Your task to perform on an android device: Go to Yahoo.com Image 0: 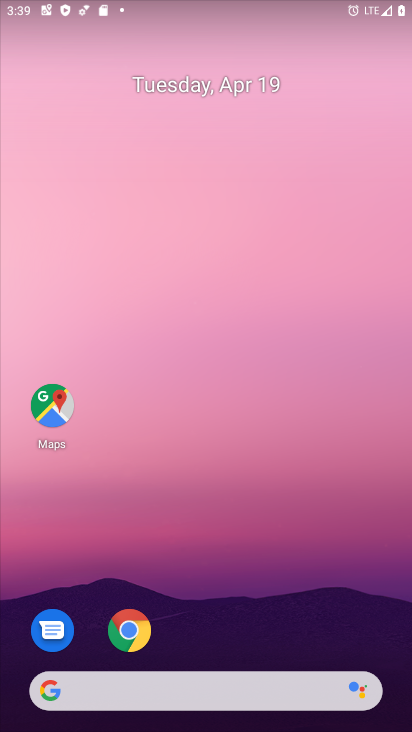
Step 0: click (126, 624)
Your task to perform on an android device: Go to Yahoo.com Image 1: 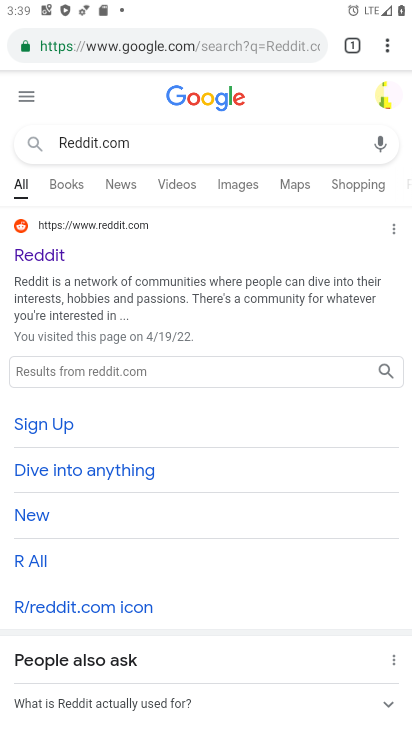
Step 1: click (386, 44)
Your task to perform on an android device: Go to Yahoo.com Image 2: 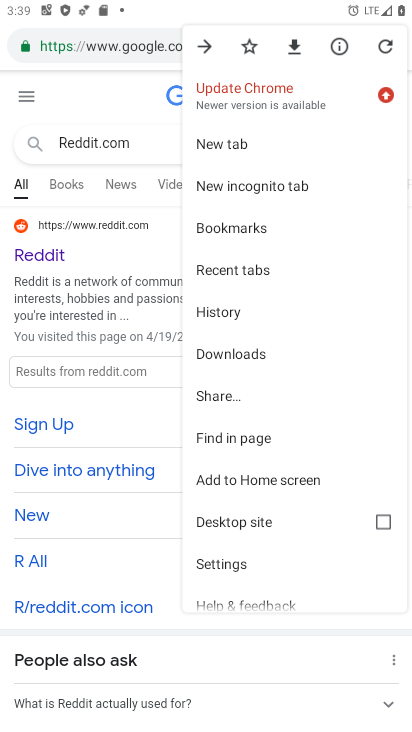
Step 2: click (220, 141)
Your task to perform on an android device: Go to Yahoo.com Image 3: 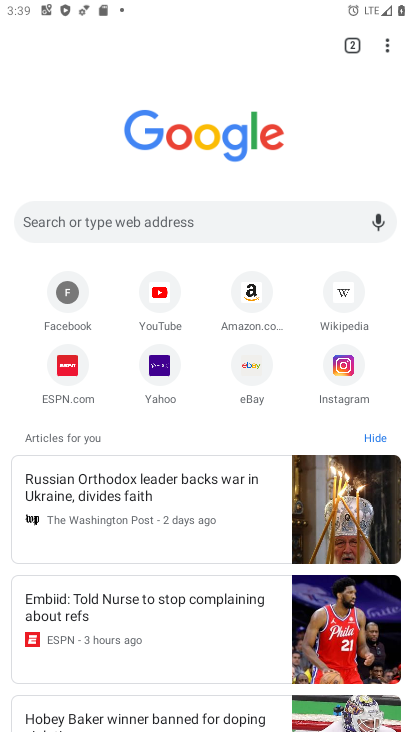
Step 3: click (158, 366)
Your task to perform on an android device: Go to Yahoo.com Image 4: 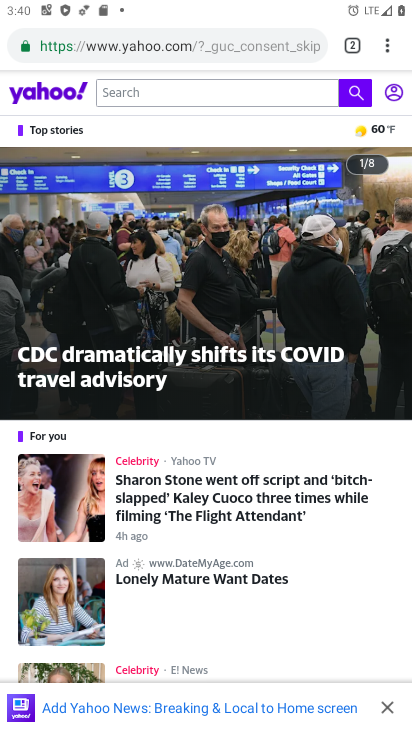
Step 4: task complete